Your task to perform on an android device: toggle sleep mode Image 0: 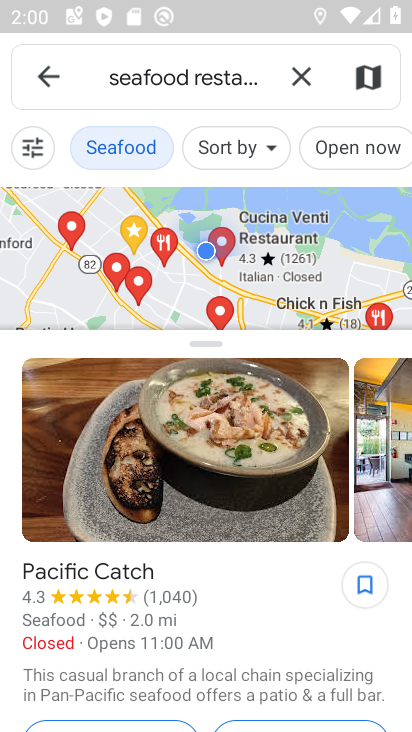
Step 0: press home button
Your task to perform on an android device: toggle sleep mode Image 1: 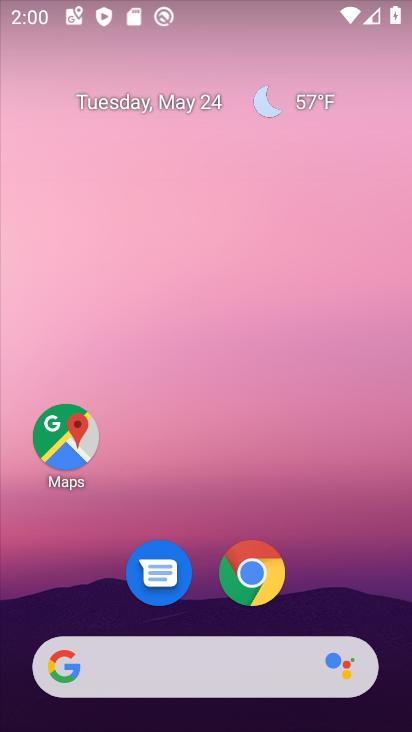
Step 1: drag from (319, 615) to (305, 64)
Your task to perform on an android device: toggle sleep mode Image 2: 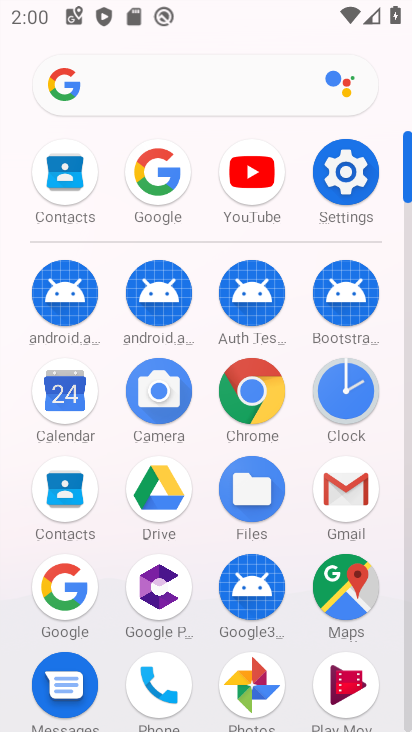
Step 2: click (355, 186)
Your task to perform on an android device: toggle sleep mode Image 3: 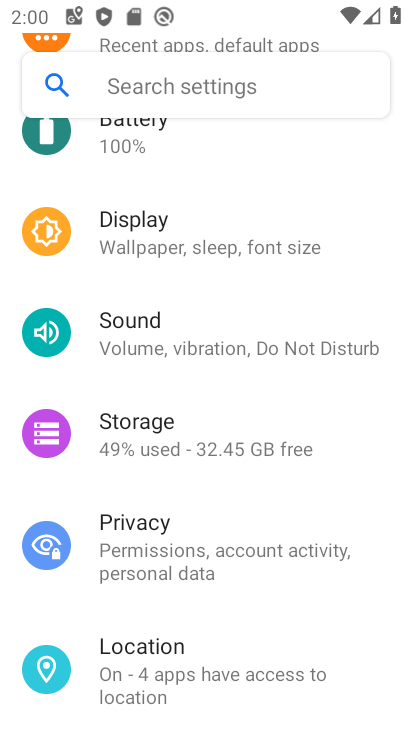
Step 3: click (156, 224)
Your task to perform on an android device: toggle sleep mode Image 4: 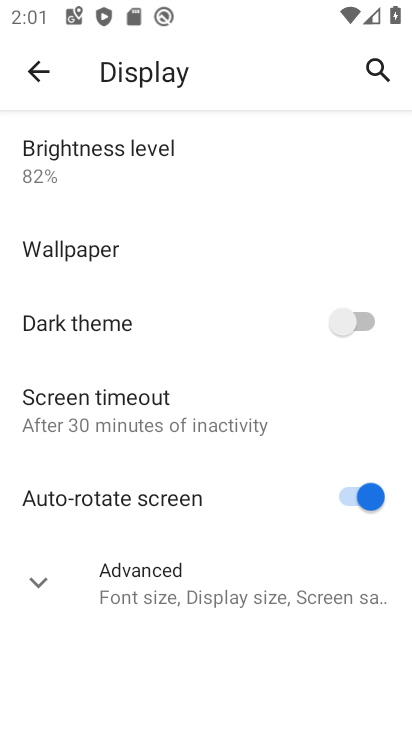
Step 4: click (261, 577)
Your task to perform on an android device: toggle sleep mode Image 5: 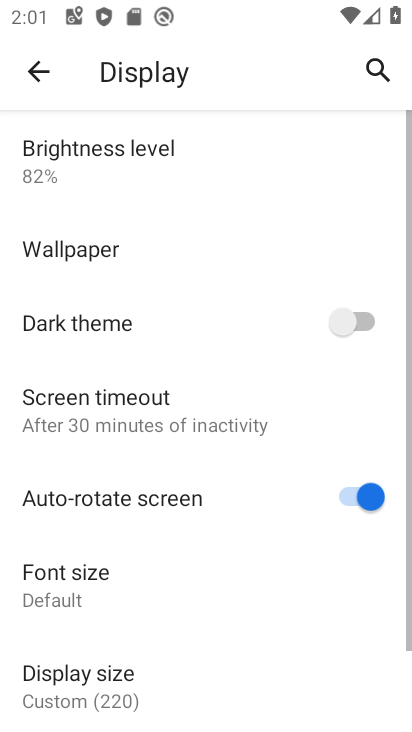
Step 5: task complete